Your task to perform on an android device: Go to accessibility settings Image 0: 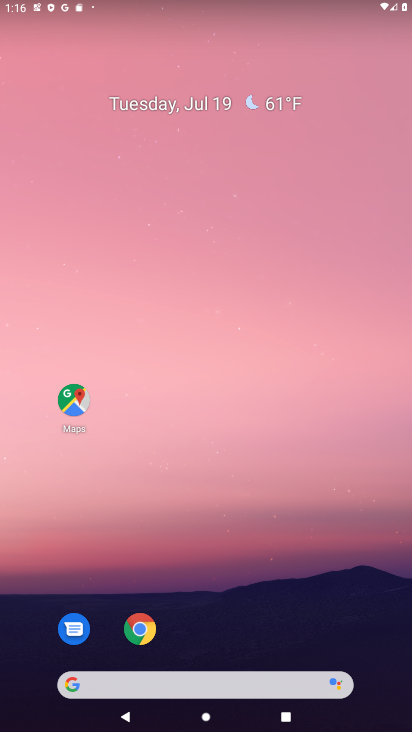
Step 0: drag from (212, 638) to (223, 65)
Your task to perform on an android device: Go to accessibility settings Image 1: 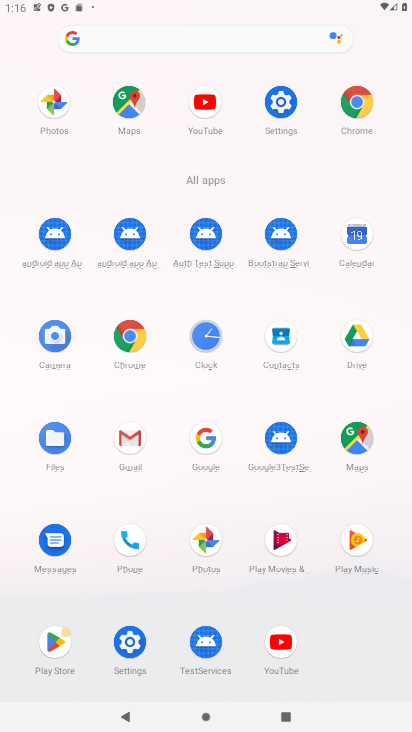
Step 1: click (278, 116)
Your task to perform on an android device: Go to accessibility settings Image 2: 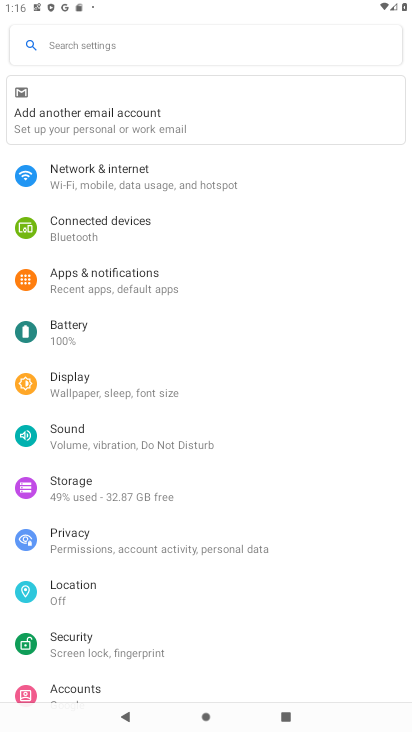
Step 2: drag from (84, 629) to (145, 258)
Your task to perform on an android device: Go to accessibility settings Image 3: 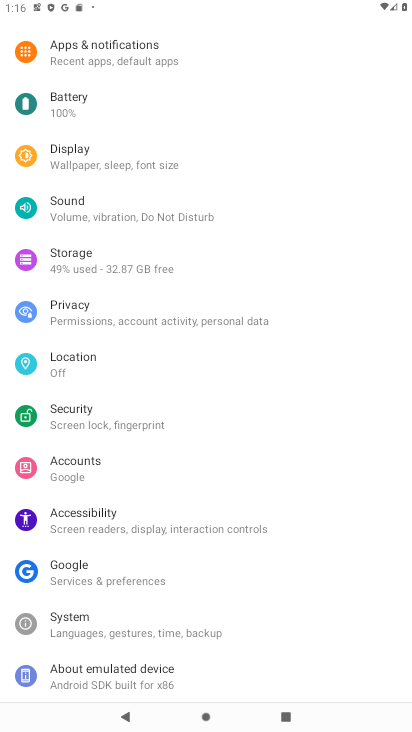
Step 3: click (108, 524)
Your task to perform on an android device: Go to accessibility settings Image 4: 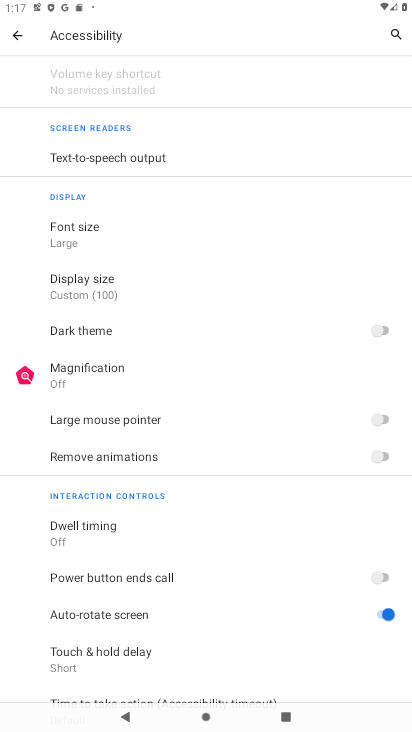
Step 4: task complete